Your task to perform on an android device: What's the weather? Image 0: 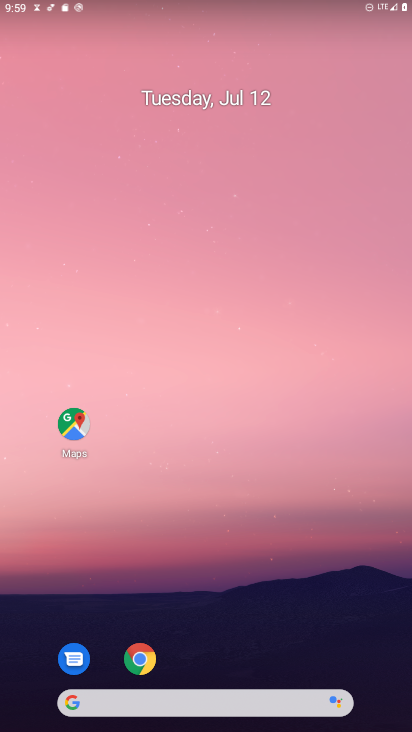
Step 0: drag from (195, 699) to (246, 233)
Your task to perform on an android device: What's the weather? Image 1: 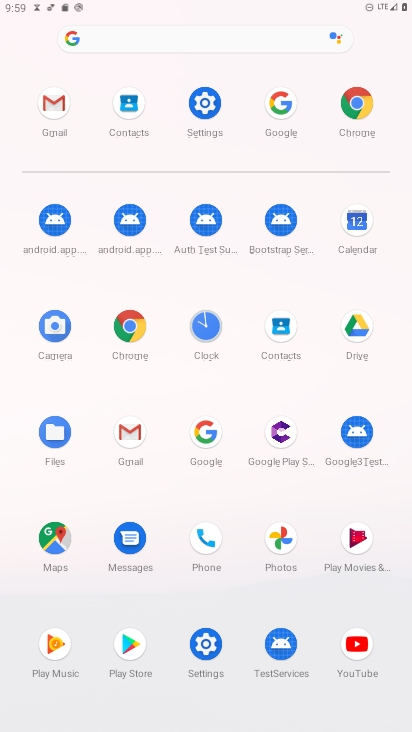
Step 1: click (276, 103)
Your task to perform on an android device: What's the weather? Image 2: 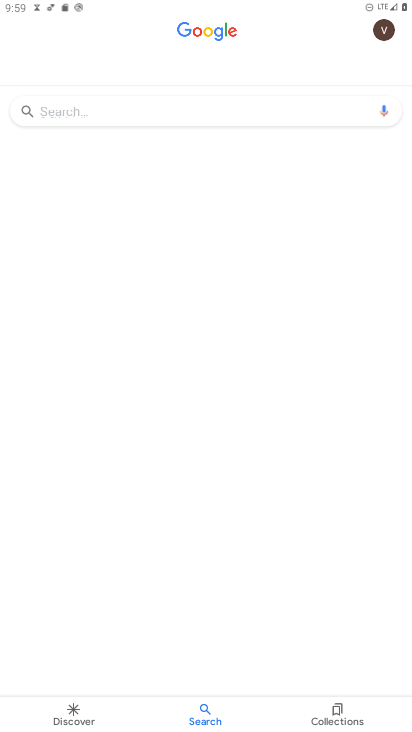
Step 2: click (171, 116)
Your task to perform on an android device: What's the weather? Image 3: 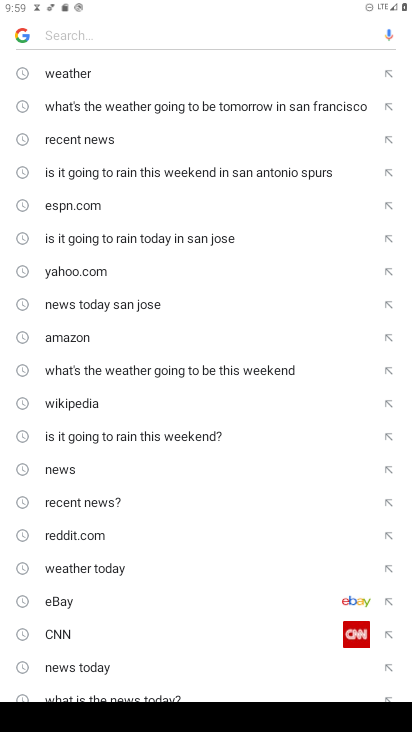
Step 3: click (85, 72)
Your task to perform on an android device: What's the weather? Image 4: 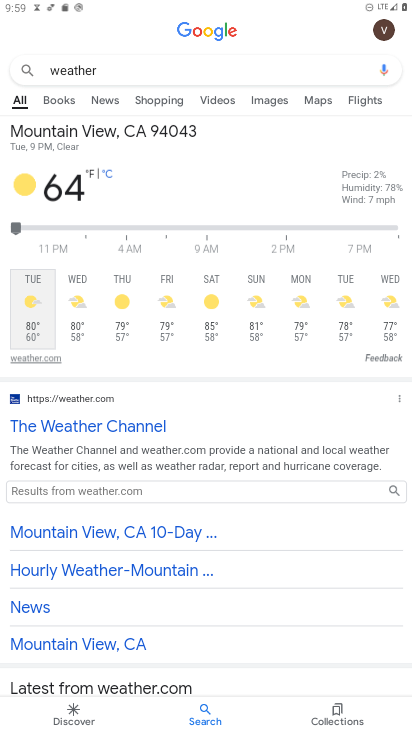
Step 4: task complete